Your task to perform on an android device: turn vacation reply on in the gmail app Image 0: 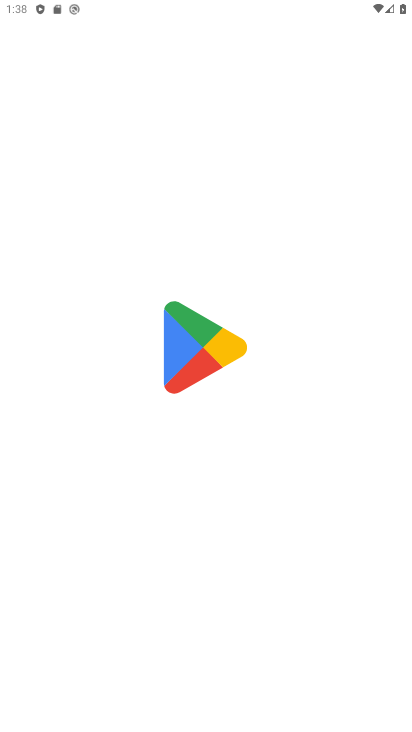
Step 0: click (205, 675)
Your task to perform on an android device: turn vacation reply on in the gmail app Image 1: 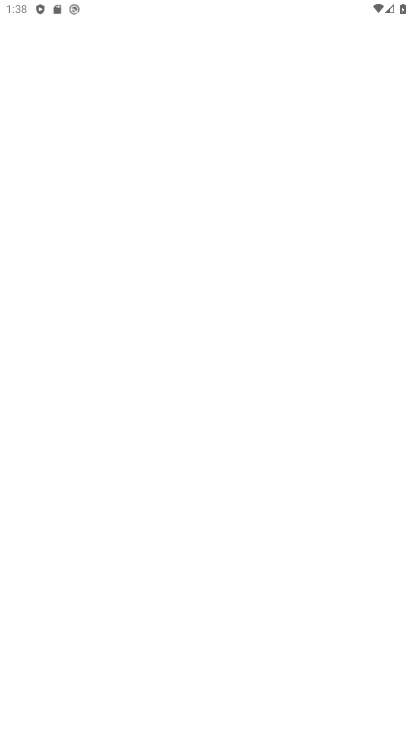
Step 1: press home button
Your task to perform on an android device: turn vacation reply on in the gmail app Image 2: 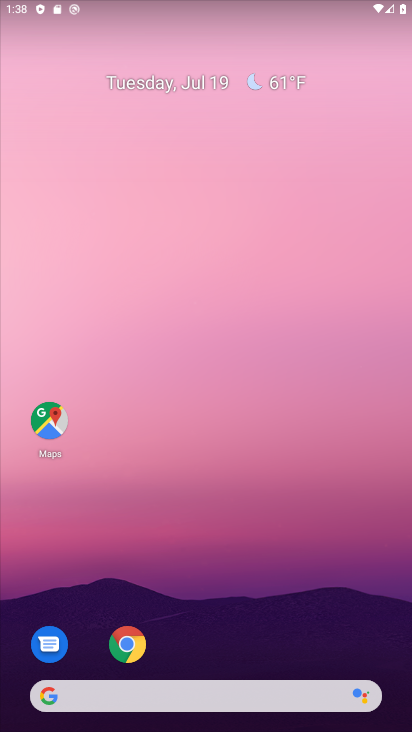
Step 2: drag from (196, 656) to (393, 43)
Your task to perform on an android device: turn vacation reply on in the gmail app Image 3: 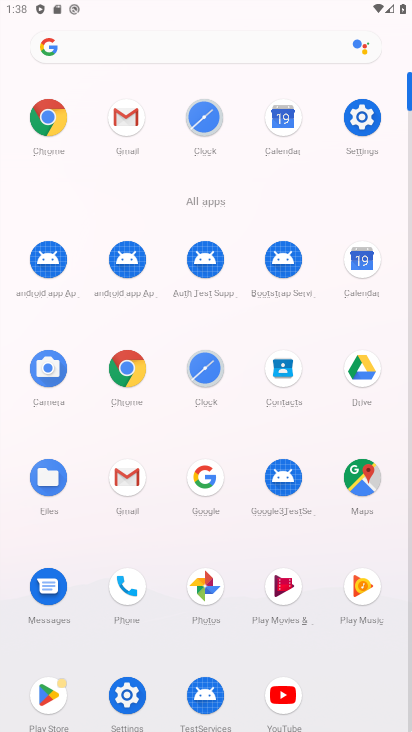
Step 3: click (121, 471)
Your task to perform on an android device: turn vacation reply on in the gmail app Image 4: 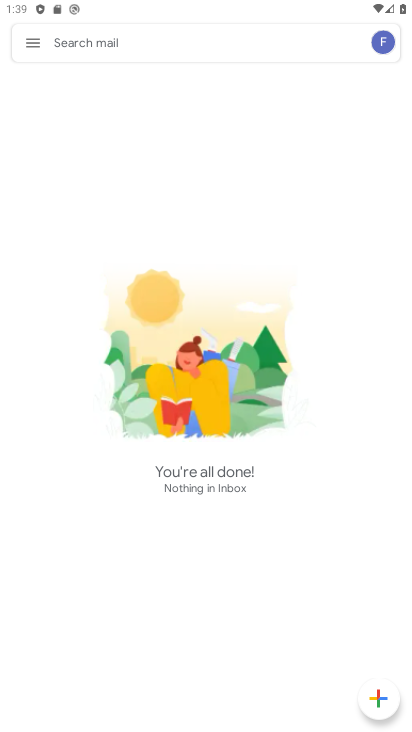
Step 4: click (28, 35)
Your task to perform on an android device: turn vacation reply on in the gmail app Image 5: 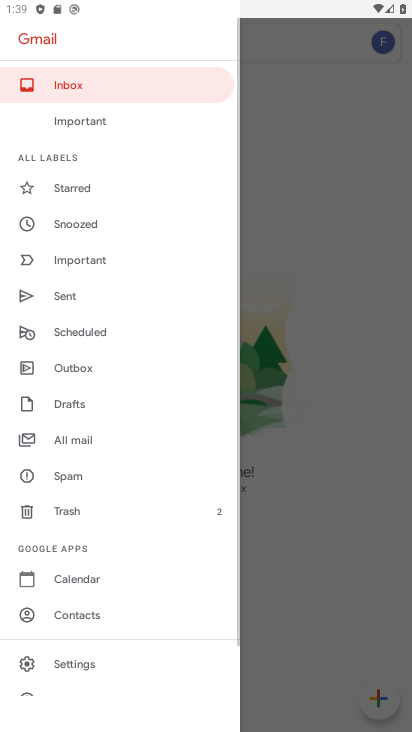
Step 5: click (72, 655)
Your task to perform on an android device: turn vacation reply on in the gmail app Image 6: 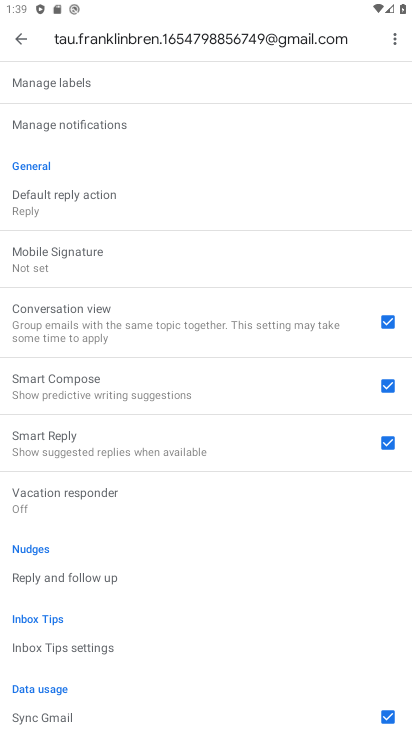
Step 6: drag from (101, 596) to (103, 510)
Your task to perform on an android device: turn vacation reply on in the gmail app Image 7: 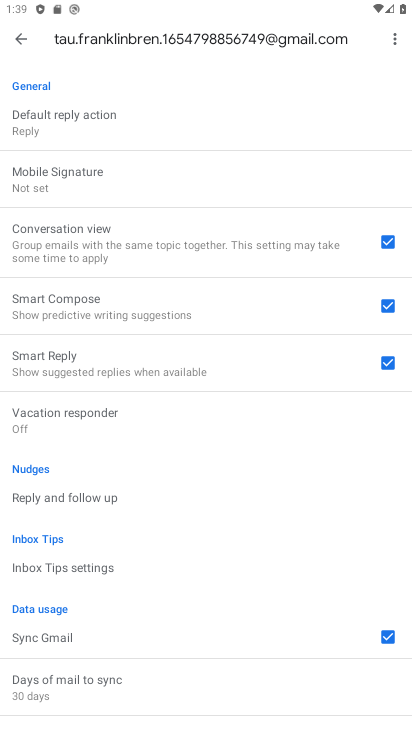
Step 7: click (59, 417)
Your task to perform on an android device: turn vacation reply on in the gmail app Image 8: 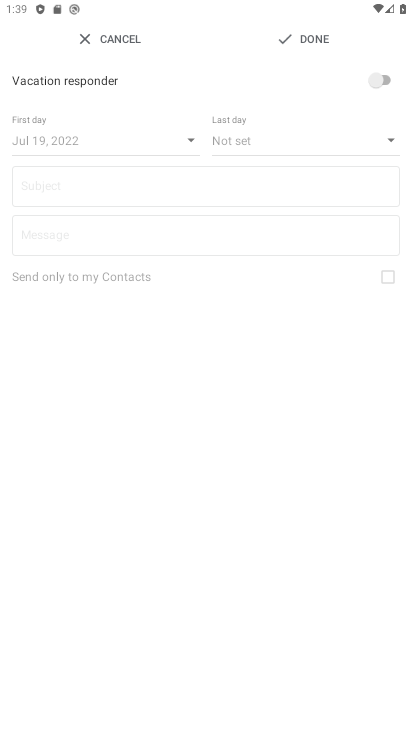
Step 8: click (376, 82)
Your task to perform on an android device: turn vacation reply on in the gmail app Image 9: 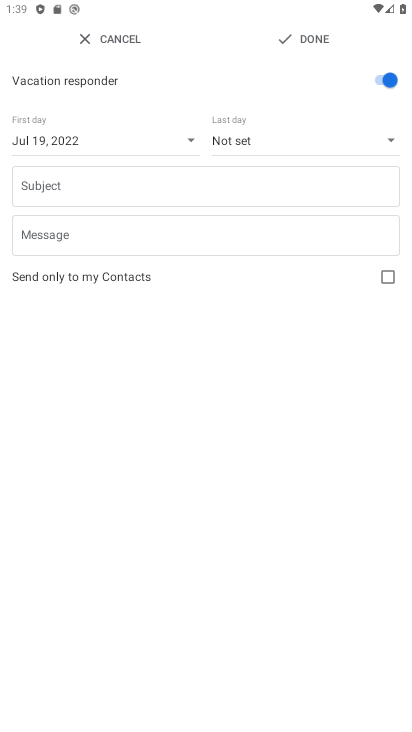
Step 9: click (324, 40)
Your task to perform on an android device: turn vacation reply on in the gmail app Image 10: 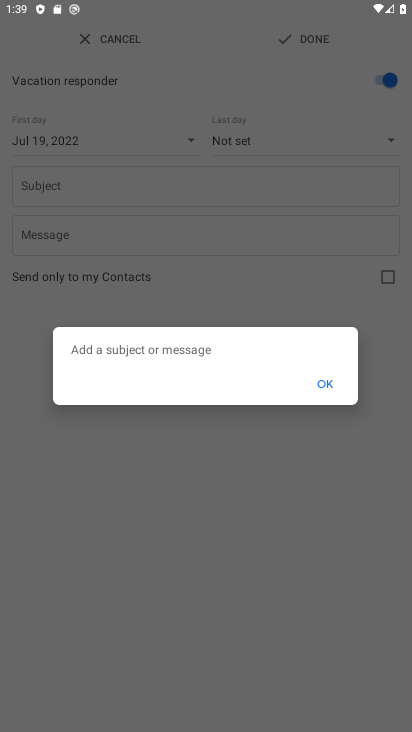
Step 10: click (333, 385)
Your task to perform on an android device: turn vacation reply on in the gmail app Image 11: 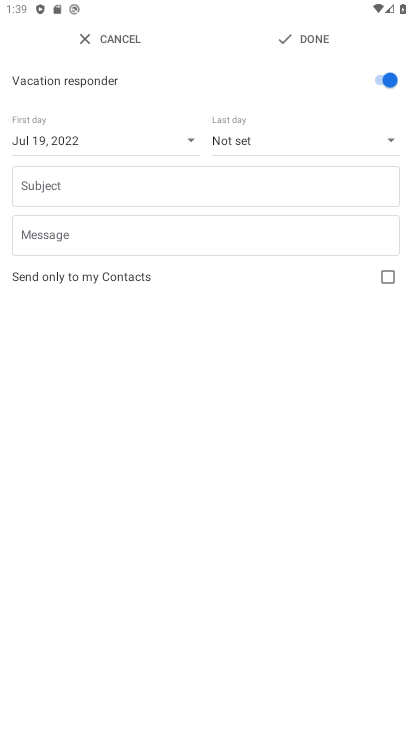
Step 11: click (321, 41)
Your task to perform on an android device: turn vacation reply on in the gmail app Image 12: 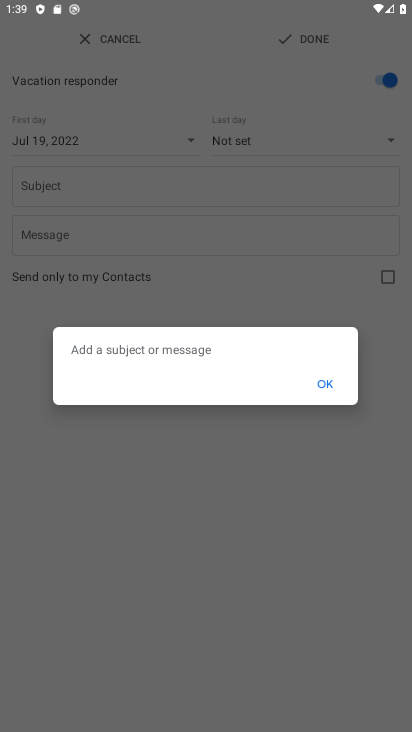
Step 12: task complete